Your task to perform on an android device: Search for "logitech g502" on walmart, select the first entry, add it to the cart, then select checkout. Image 0: 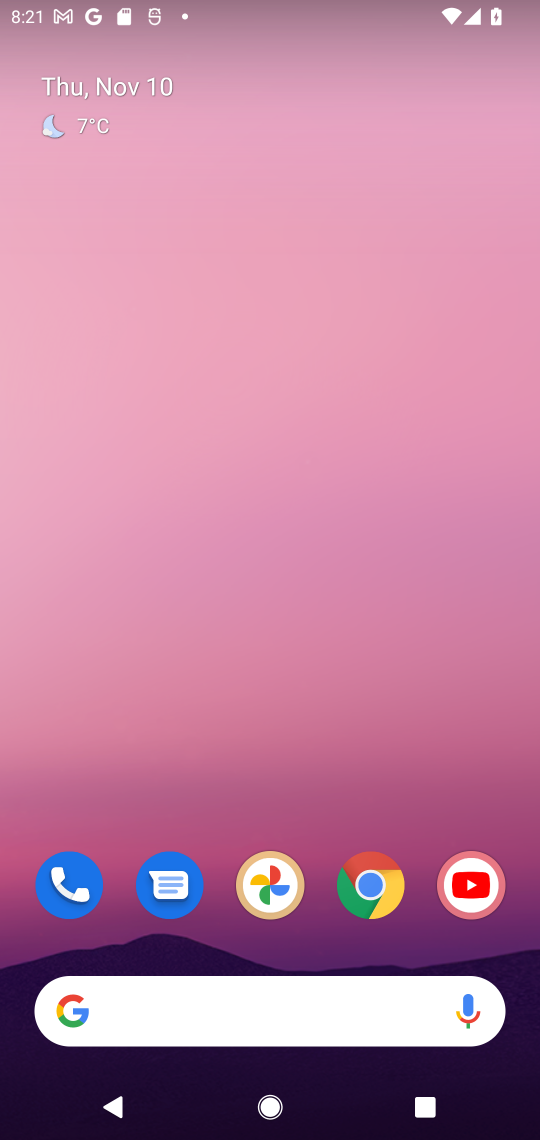
Step 0: click (416, 856)
Your task to perform on an android device: Search for "logitech g502" on walmart, select the first entry, add it to the cart, then select checkout. Image 1: 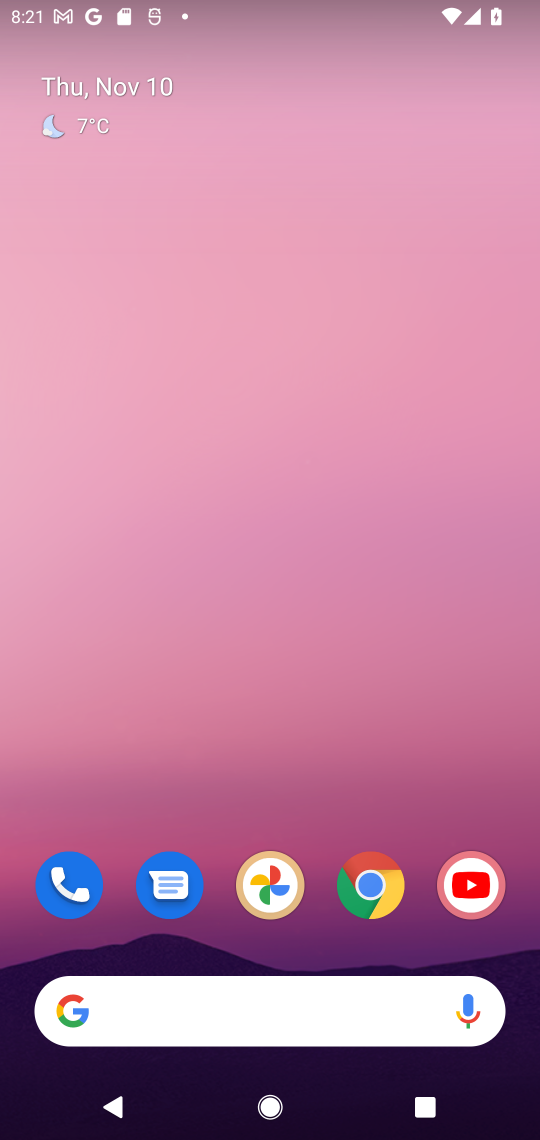
Step 1: click (378, 870)
Your task to perform on an android device: Search for "logitech g502" on walmart, select the first entry, add it to the cart, then select checkout. Image 2: 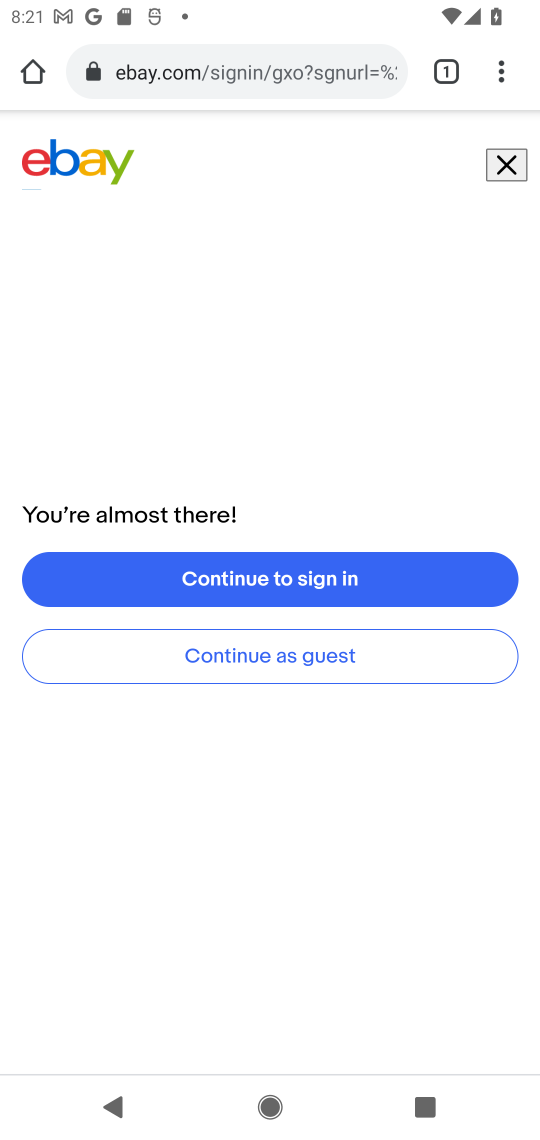
Step 2: click (299, 82)
Your task to perform on an android device: Search for "logitech g502" on walmart, select the first entry, add it to the cart, then select checkout. Image 3: 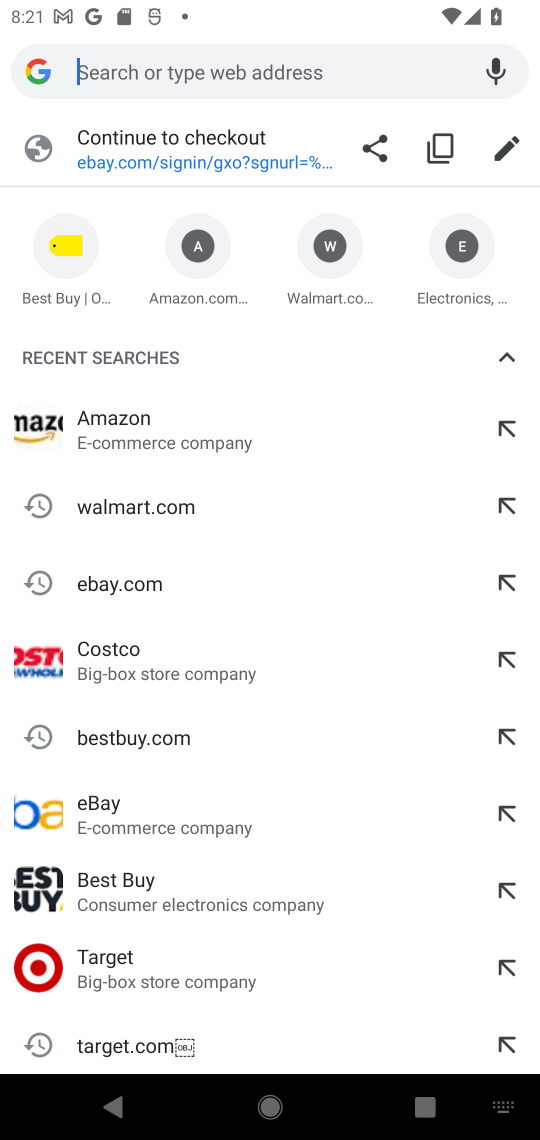
Step 3: click (187, 504)
Your task to perform on an android device: Search for "logitech g502" on walmart, select the first entry, add it to the cart, then select checkout. Image 4: 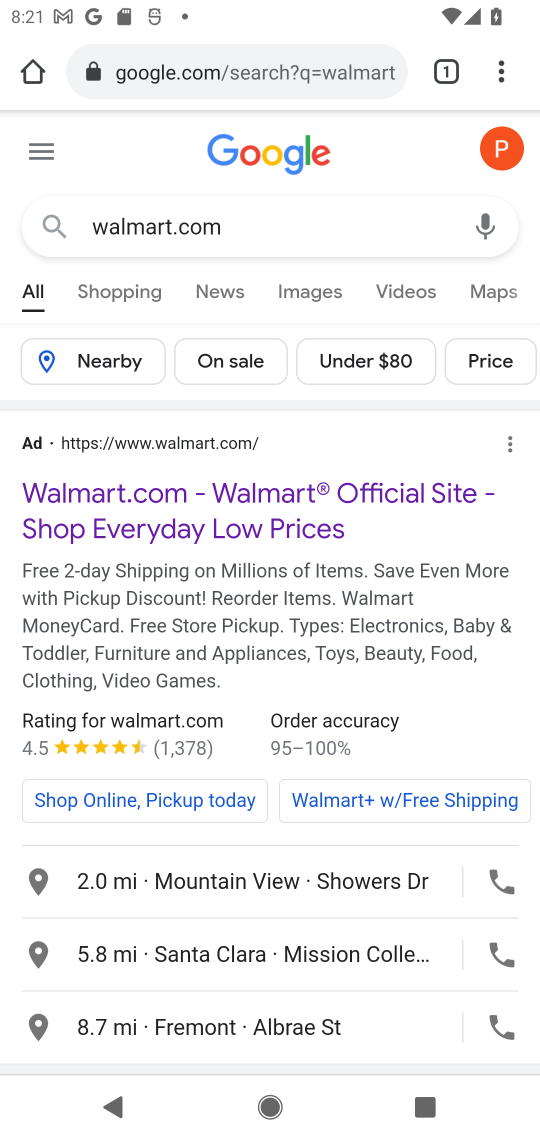
Step 4: click (187, 435)
Your task to perform on an android device: Search for "logitech g502" on walmart, select the first entry, add it to the cart, then select checkout. Image 5: 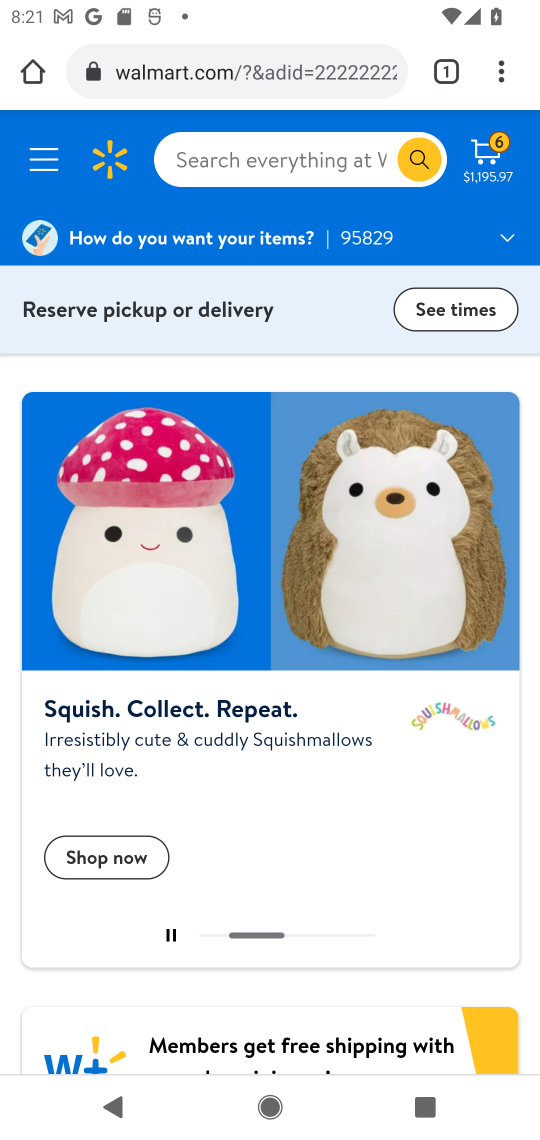
Step 5: click (271, 152)
Your task to perform on an android device: Search for "logitech g502" on walmart, select the first entry, add it to the cart, then select checkout. Image 6: 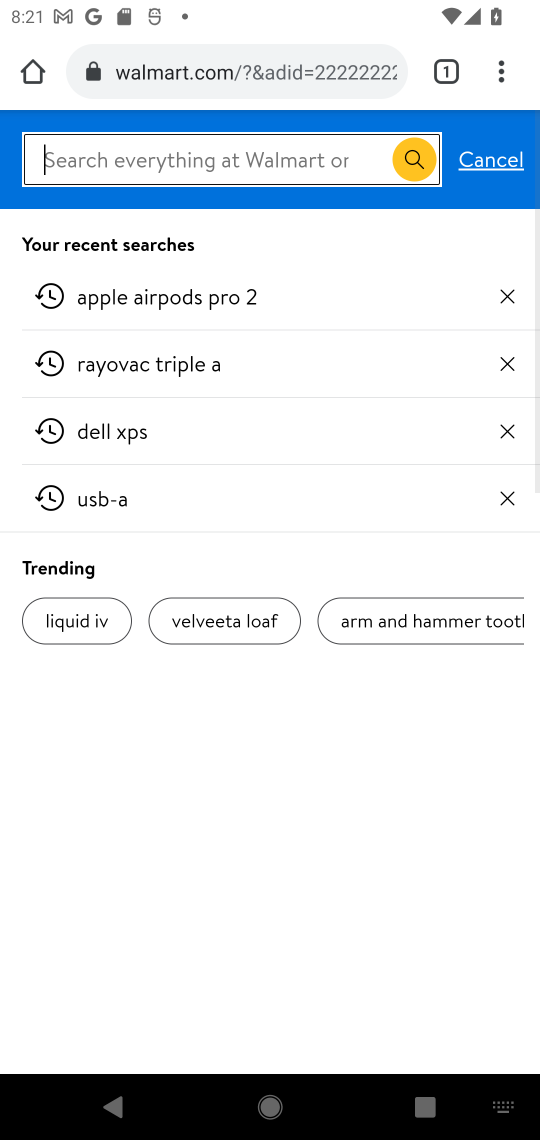
Step 6: type "logitech g502"
Your task to perform on an android device: Search for "logitech g502" on walmart, select the first entry, add it to the cart, then select checkout. Image 7: 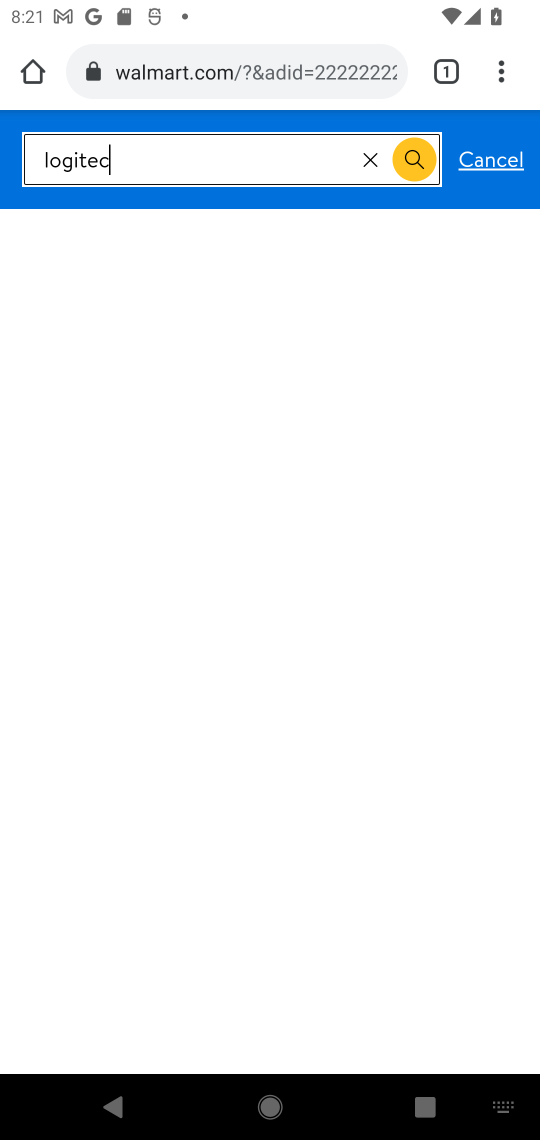
Step 7: press enter
Your task to perform on an android device: Search for "logitech g502" on walmart, select the first entry, add it to the cart, then select checkout. Image 8: 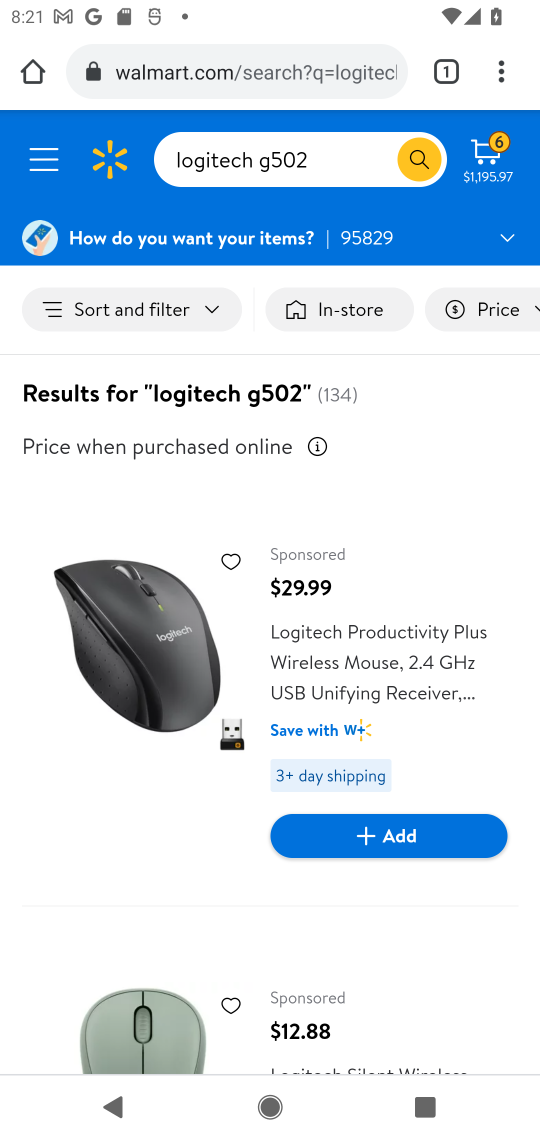
Step 8: drag from (422, 932) to (375, 492)
Your task to perform on an android device: Search for "logitech g502" on walmart, select the first entry, add it to the cart, then select checkout. Image 9: 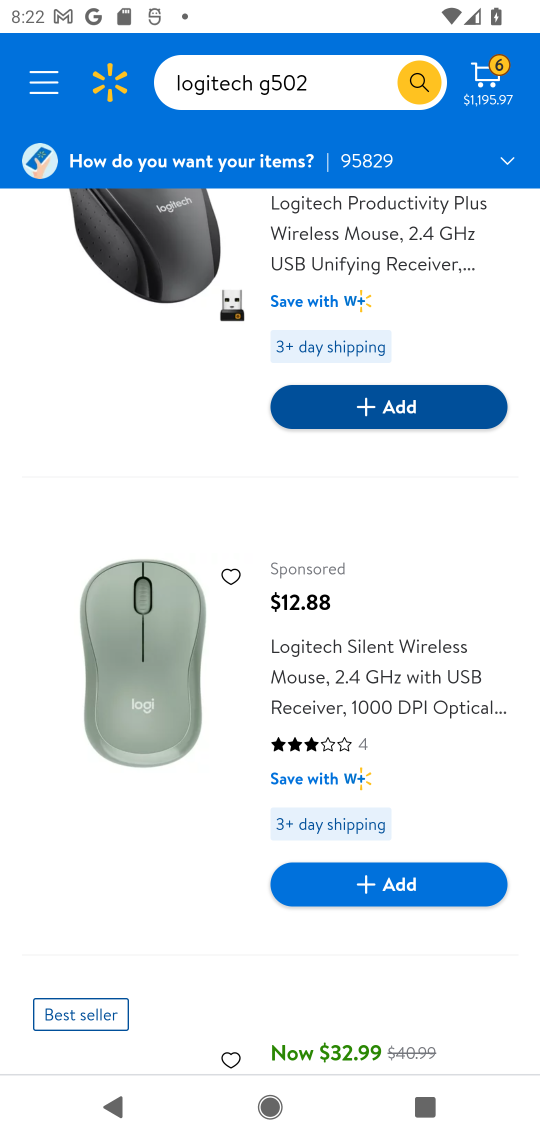
Step 9: drag from (450, 967) to (344, 447)
Your task to perform on an android device: Search for "logitech g502" on walmart, select the first entry, add it to the cart, then select checkout. Image 10: 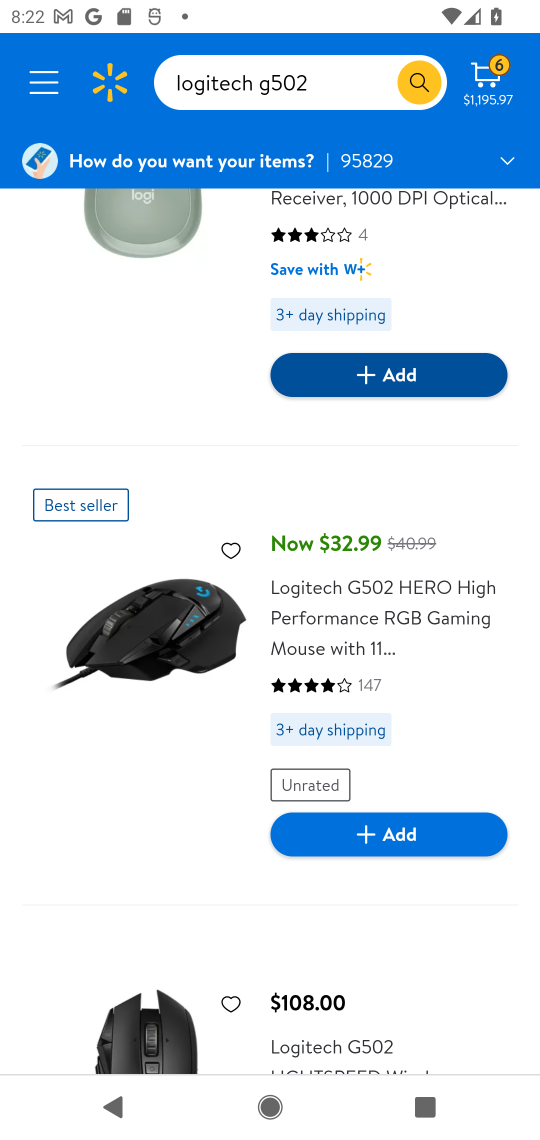
Step 10: click (159, 629)
Your task to perform on an android device: Search for "logitech g502" on walmart, select the first entry, add it to the cart, then select checkout. Image 11: 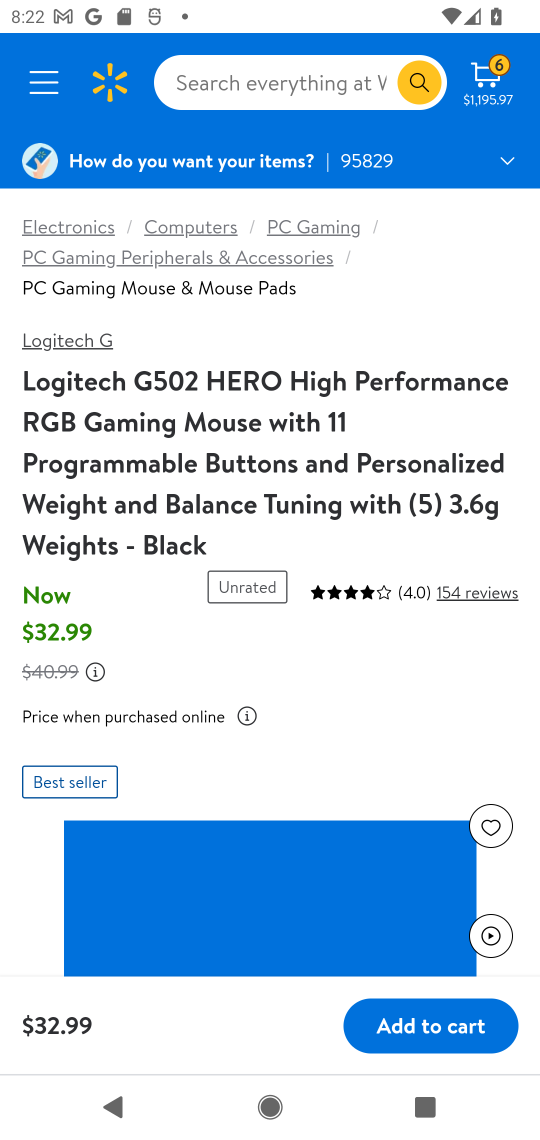
Step 11: drag from (367, 748) to (384, 408)
Your task to perform on an android device: Search for "logitech g502" on walmart, select the first entry, add it to the cart, then select checkout. Image 12: 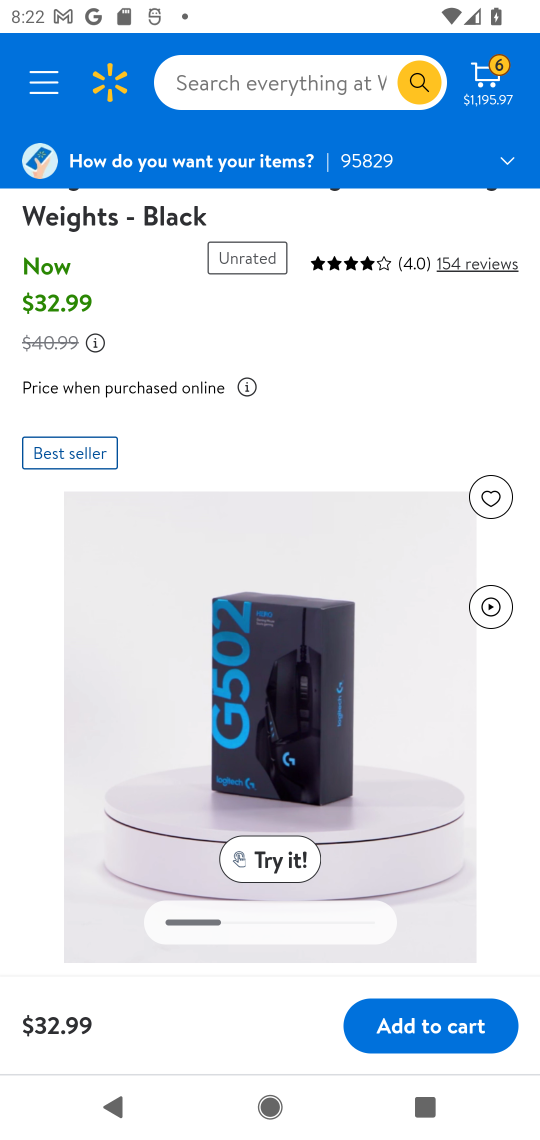
Step 12: click (425, 1026)
Your task to perform on an android device: Search for "logitech g502" on walmart, select the first entry, add it to the cart, then select checkout. Image 13: 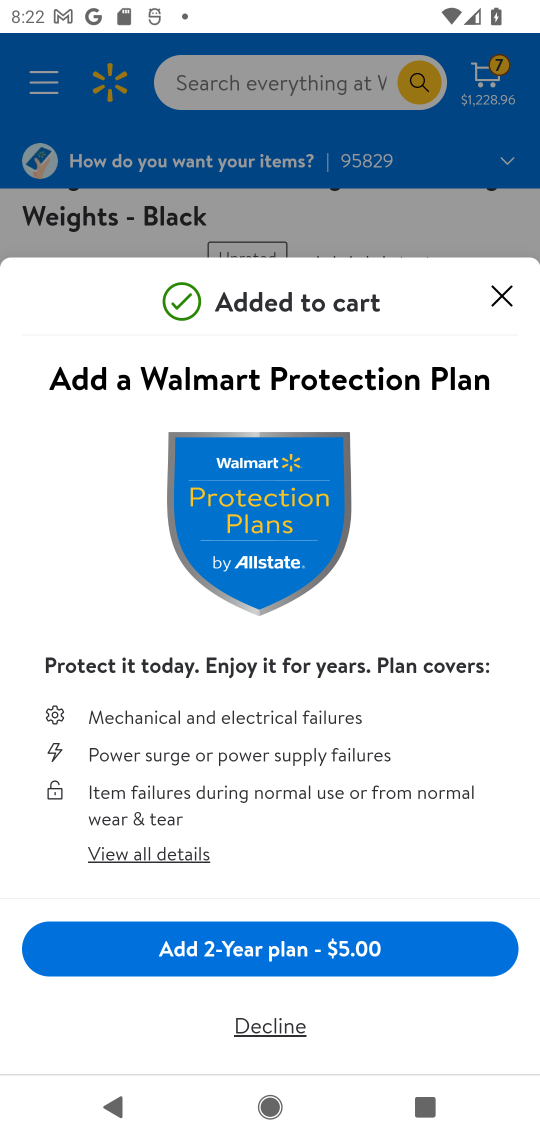
Step 13: click (496, 295)
Your task to perform on an android device: Search for "logitech g502" on walmart, select the first entry, add it to the cart, then select checkout. Image 14: 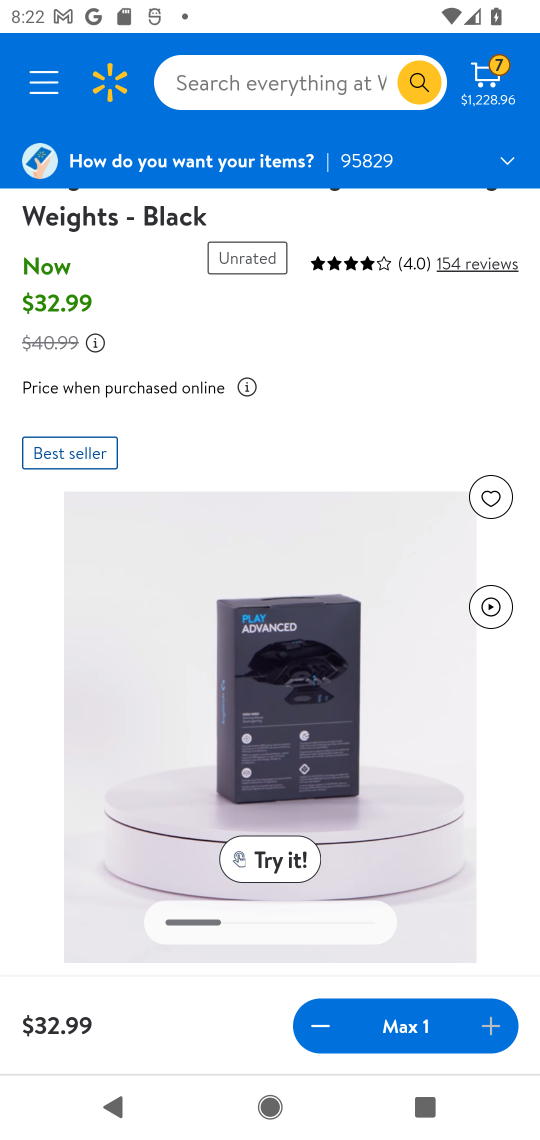
Step 14: click (483, 81)
Your task to perform on an android device: Search for "logitech g502" on walmart, select the first entry, add it to the cart, then select checkout. Image 15: 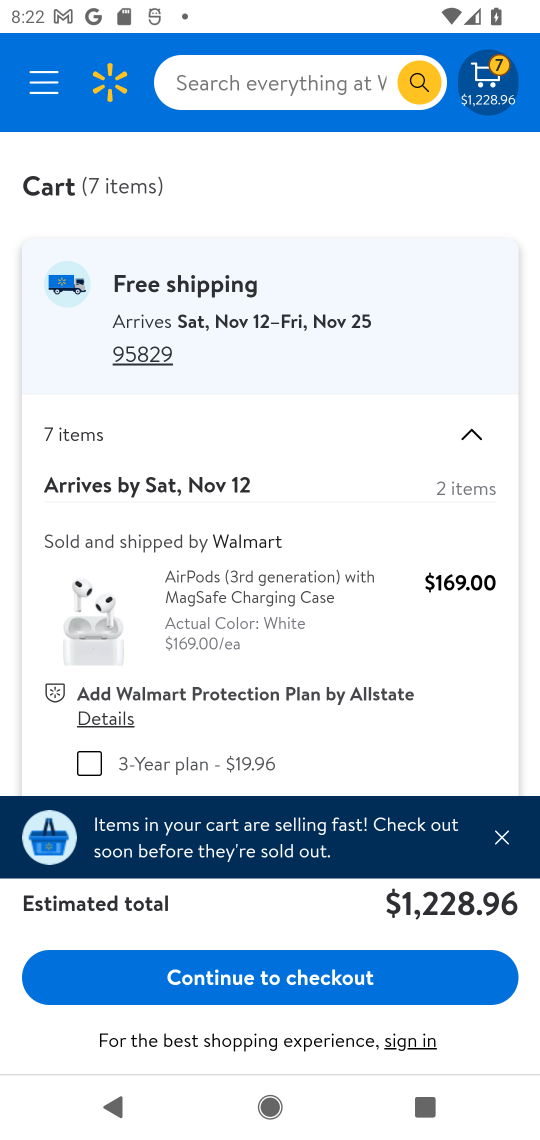
Step 15: click (368, 975)
Your task to perform on an android device: Search for "logitech g502" on walmart, select the first entry, add it to the cart, then select checkout. Image 16: 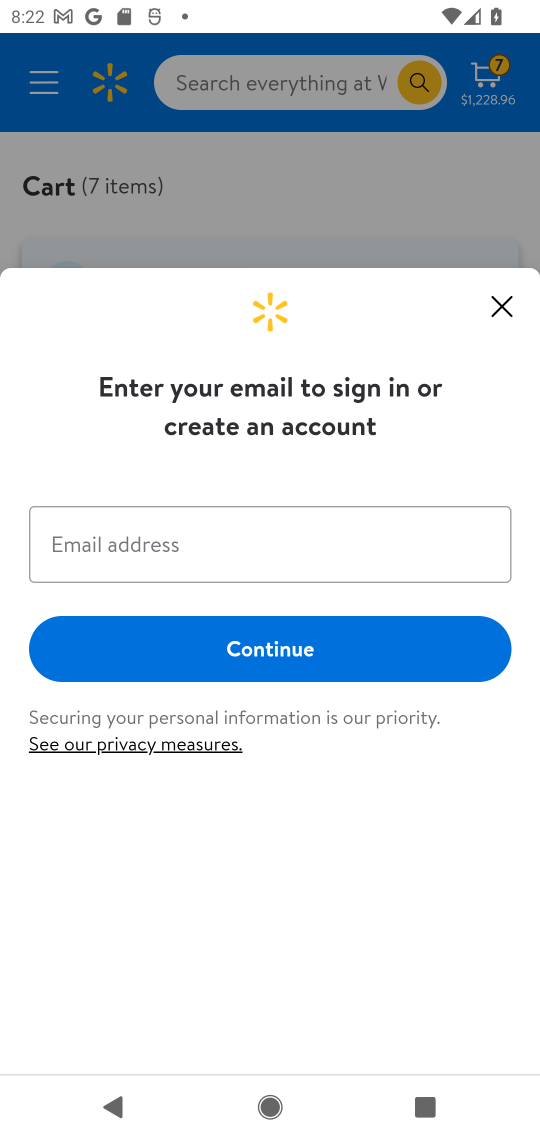
Step 16: task complete